Your task to perform on an android device: Is it going to rain today? Image 0: 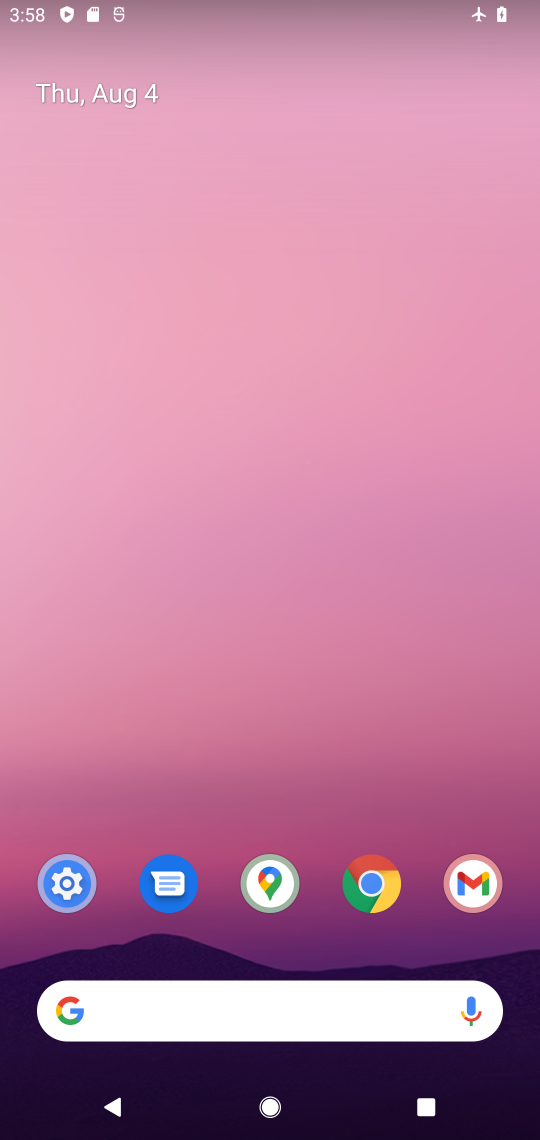
Step 0: drag from (466, 804) to (327, 84)
Your task to perform on an android device: Is it going to rain today? Image 1: 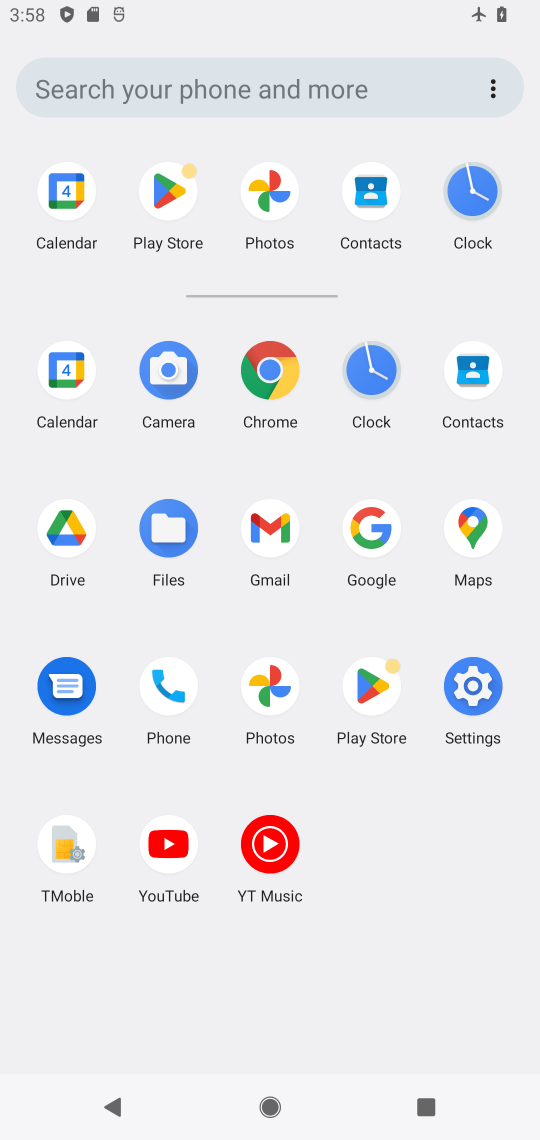
Step 1: click (354, 532)
Your task to perform on an android device: Is it going to rain today? Image 2: 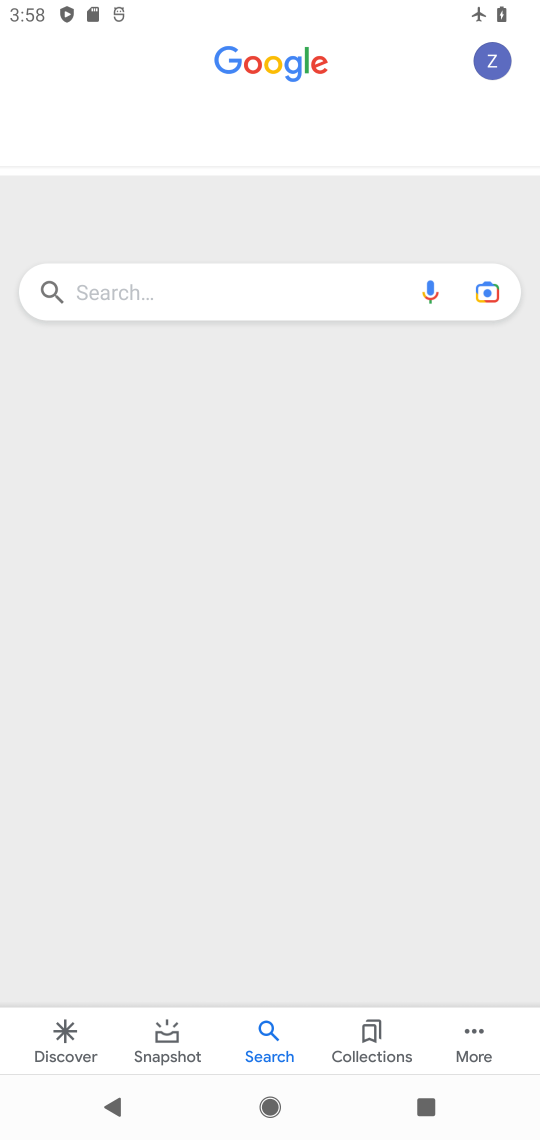
Step 2: click (227, 282)
Your task to perform on an android device: Is it going to rain today? Image 3: 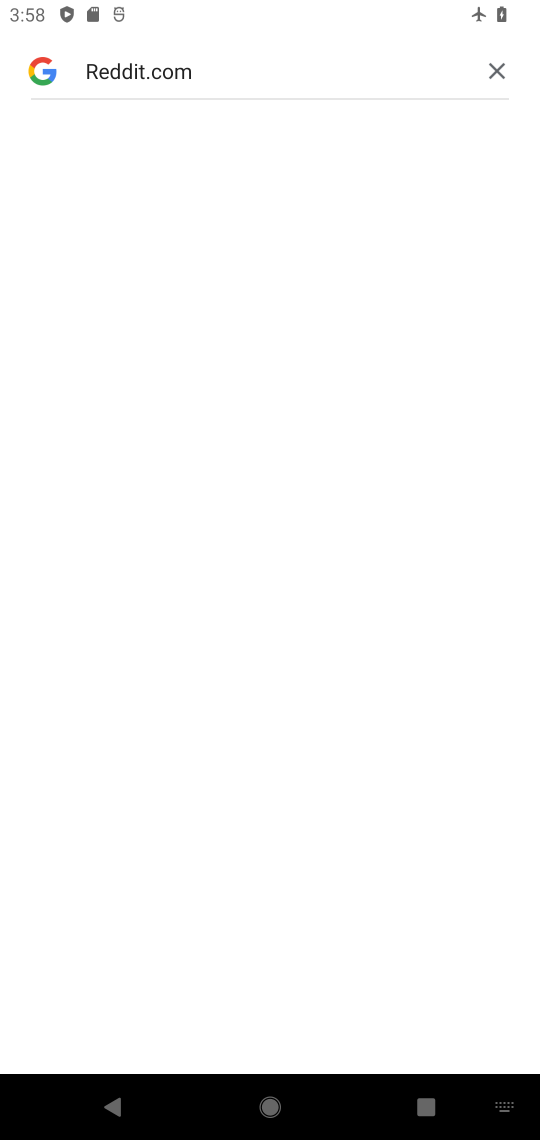
Step 3: click (502, 59)
Your task to perform on an android device: Is it going to rain today? Image 4: 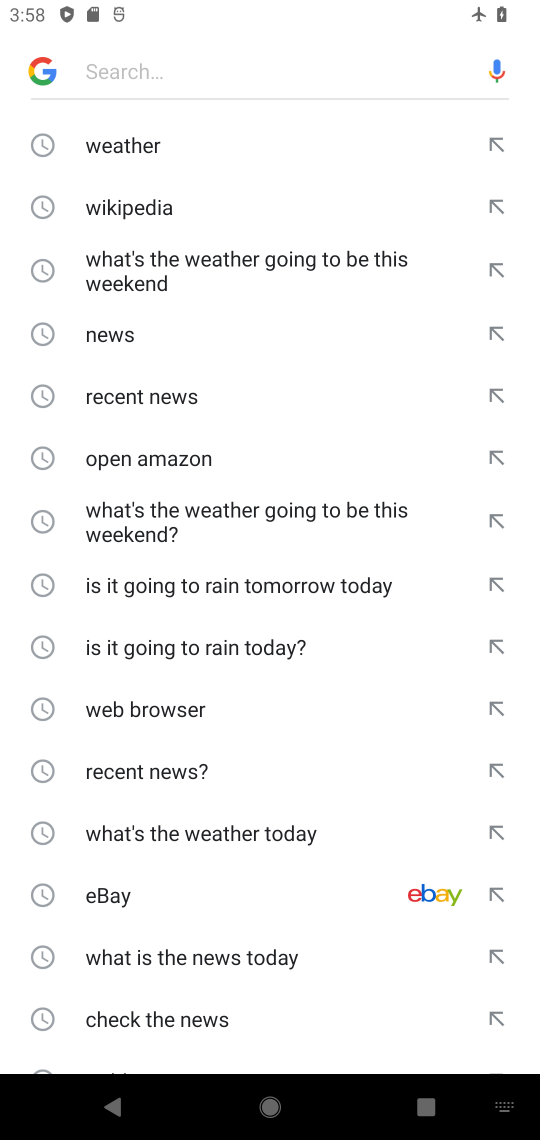
Step 4: click (241, 635)
Your task to perform on an android device: Is it going to rain today? Image 5: 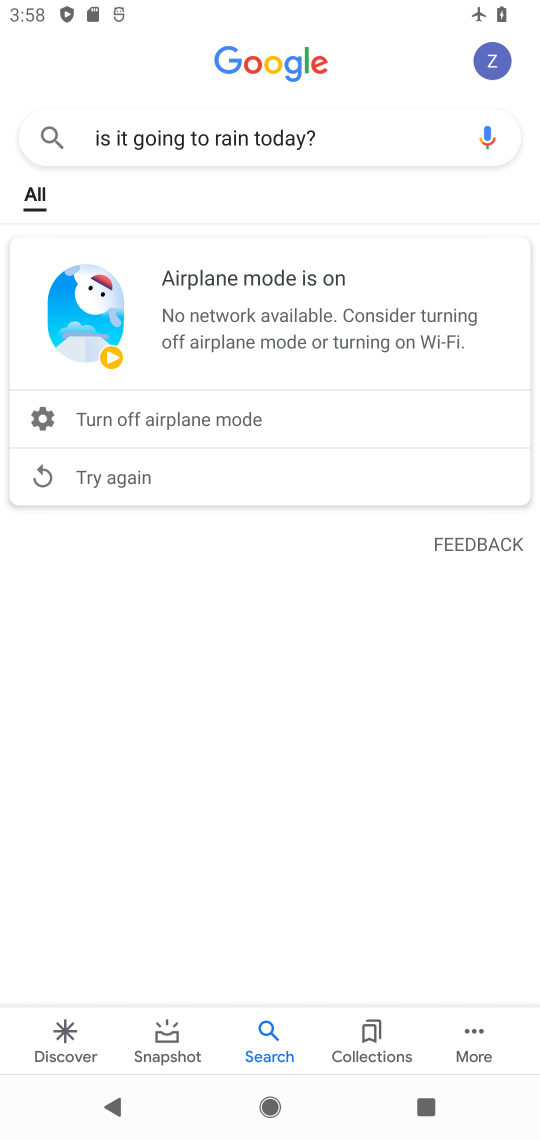
Step 5: task complete